Your task to perform on an android device: change notification settings in the gmail app Image 0: 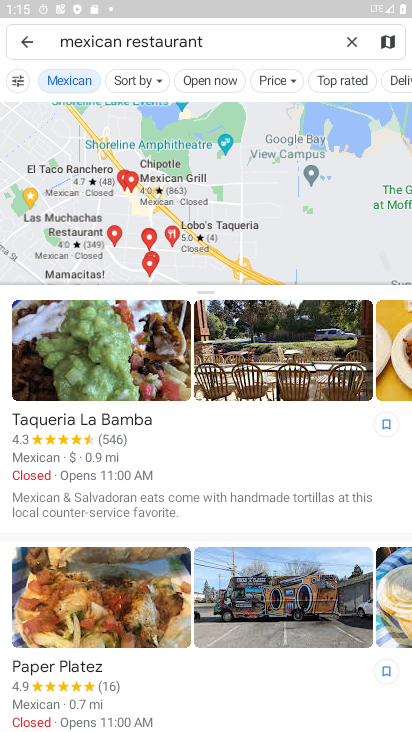
Step 0: press home button
Your task to perform on an android device: change notification settings in the gmail app Image 1: 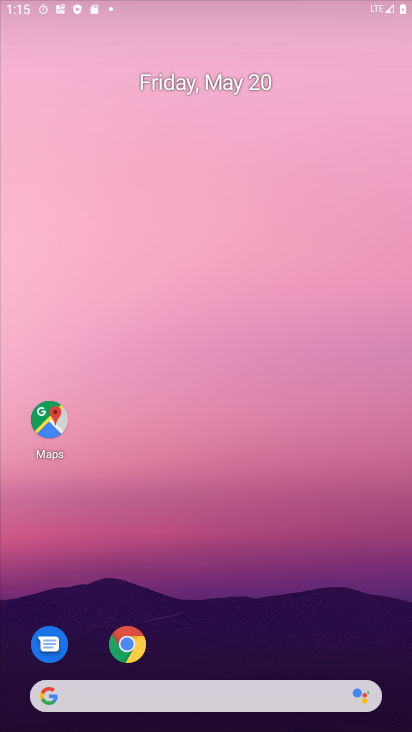
Step 1: drag from (300, 574) to (243, 10)
Your task to perform on an android device: change notification settings in the gmail app Image 2: 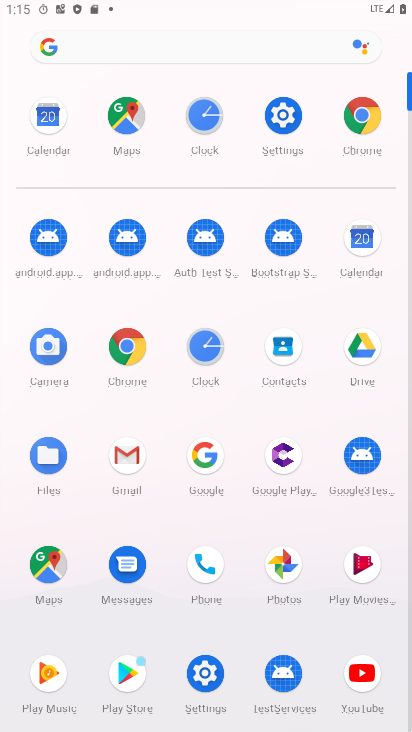
Step 2: click (146, 457)
Your task to perform on an android device: change notification settings in the gmail app Image 3: 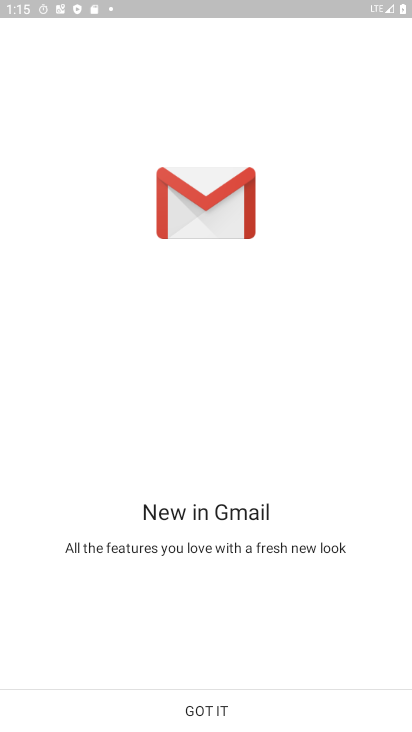
Step 3: click (207, 707)
Your task to perform on an android device: change notification settings in the gmail app Image 4: 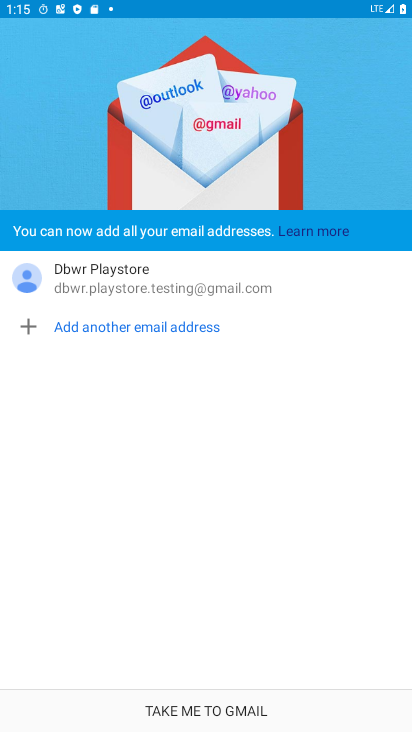
Step 4: click (207, 707)
Your task to perform on an android device: change notification settings in the gmail app Image 5: 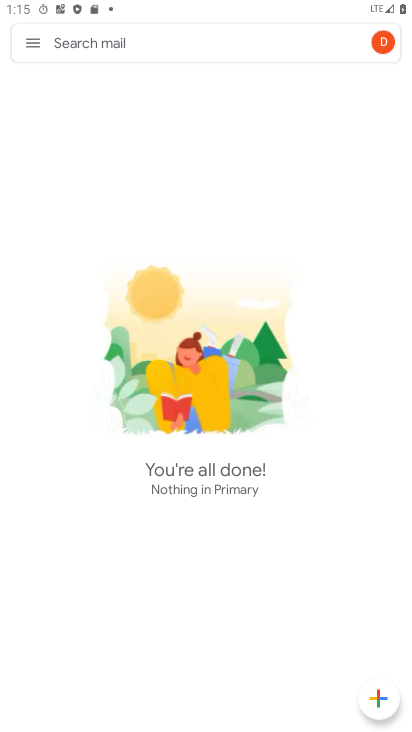
Step 5: click (40, 45)
Your task to perform on an android device: change notification settings in the gmail app Image 6: 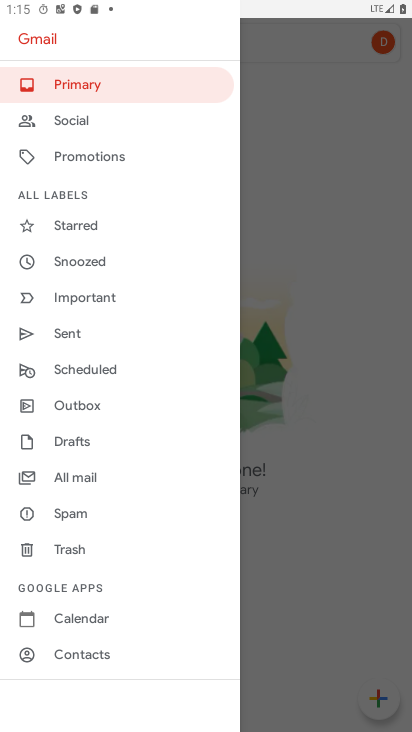
Step 6: drag from (93, 602) to (92, 138)
Your task to perform on an android device: change notification settings in the gmail app Image 7: 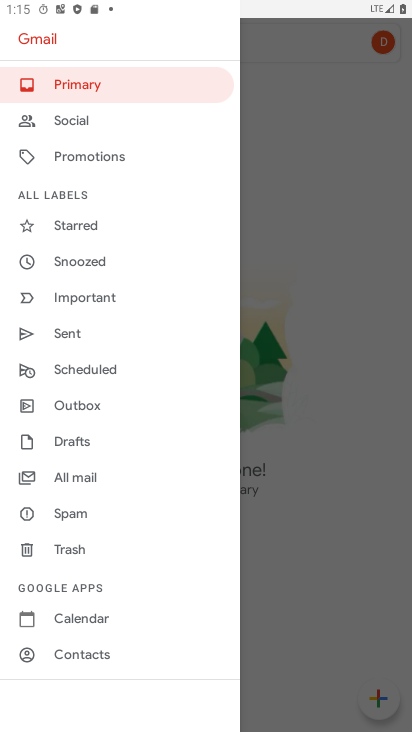
Step 7: drag from (87, 555) to (151, 188)
Your task to perform on an android device: change notification settings in the gmail app Image 8: 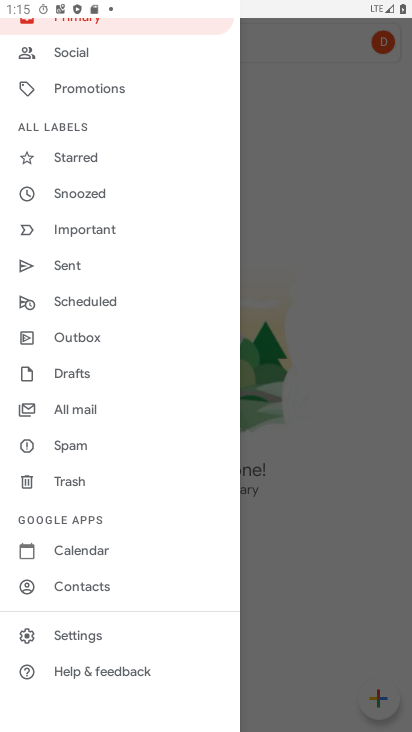
Step 8: click (87, 640)
Your task to perform on an android device: change notification settings in the gmail app Image 9: 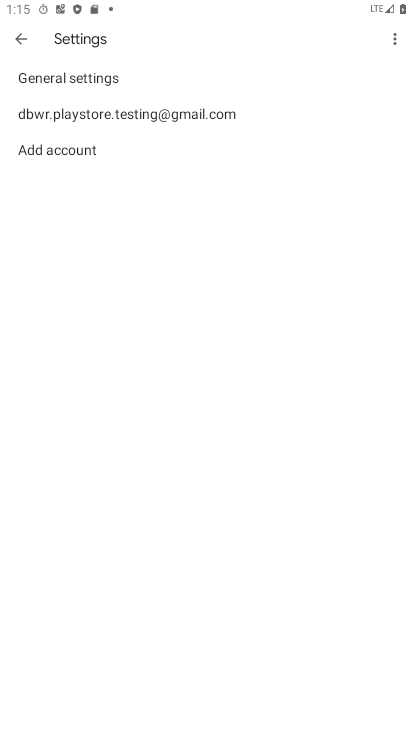
Step 9: click (67, 111)
Your task to perform on an android device: change notification settings in the gmail app Image 10: 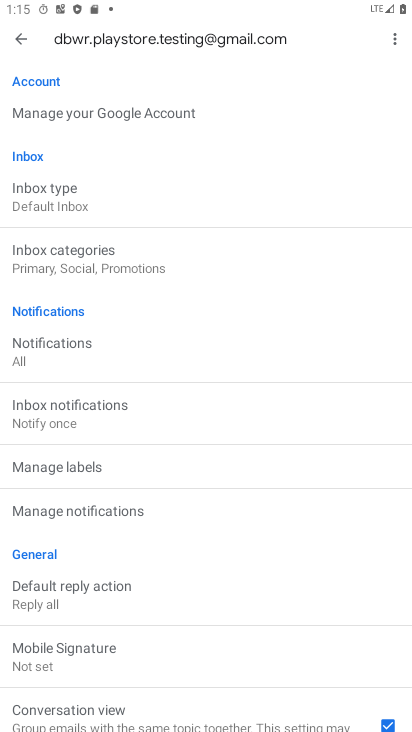
Step 10: click (61, 356)
Your task to perform on an android device: change notification settings in the gmail app Image 11: 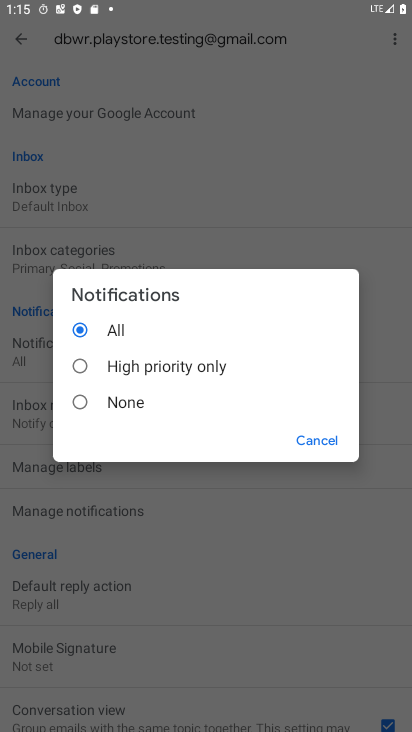
Step 11: click (121, 361)
Your task to perform on an android device: change notification settings in the gmail app Image 12: 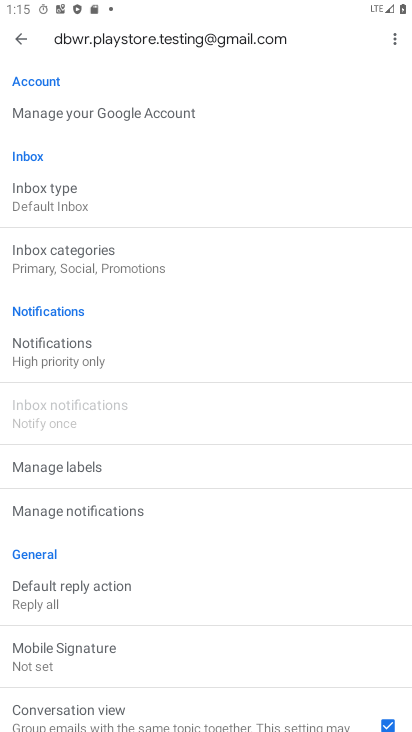
Step 12: task complete